Your task to perform on an android device: change the clock display to digital Image 0: 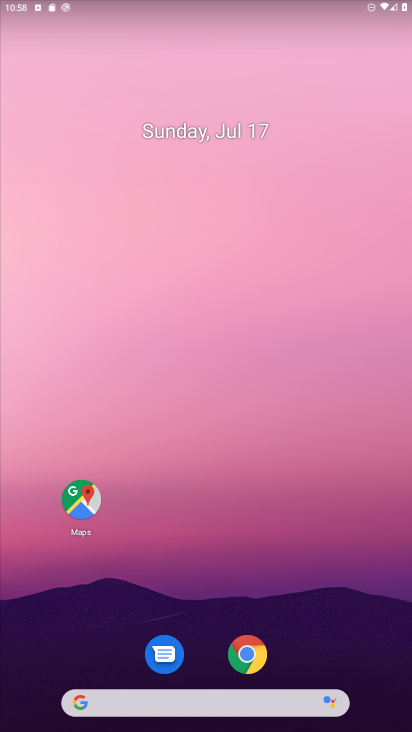
Step 0: drag from (208, 564) to (208, 234)
Your task to perform on an android device: change the clock display to digital Image 1: 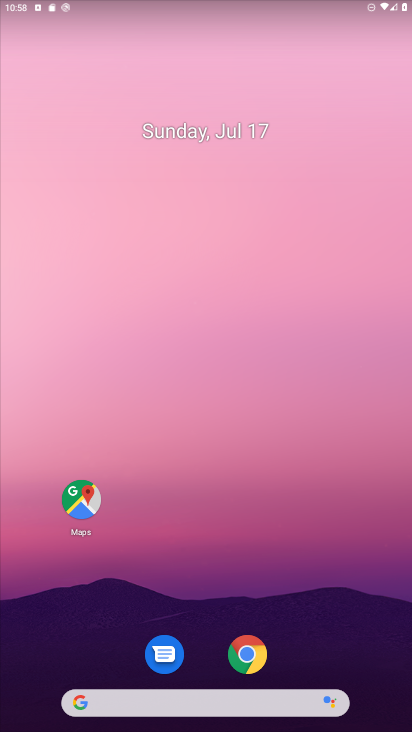
Step 1: drag from (193, 615) to (197, 105)
Your task to perform on an android device: change the clock display to digital Image 2: 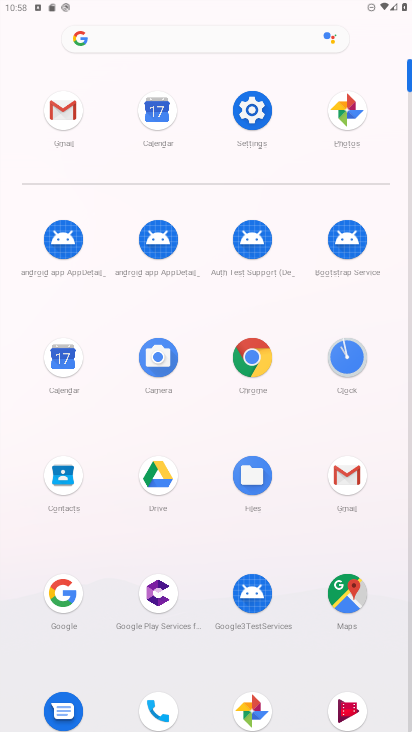
Step 2: click (338, 358)
Your task to perform on an android device: change the clock display to digital Image 3: 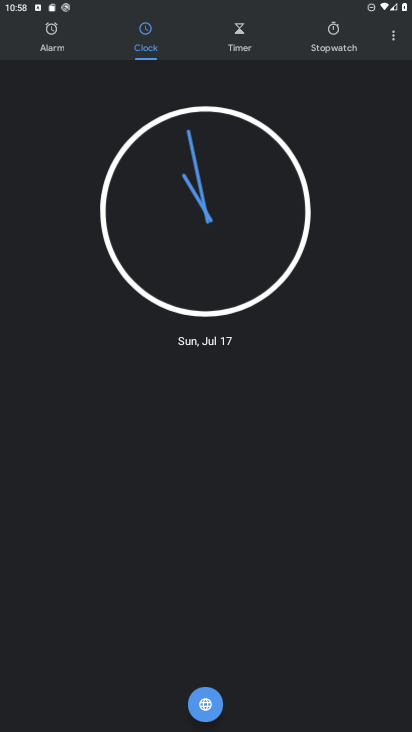
Step 3: click (398, 34)
Your task to perform on an android device: change the clock display to digital Image 4: 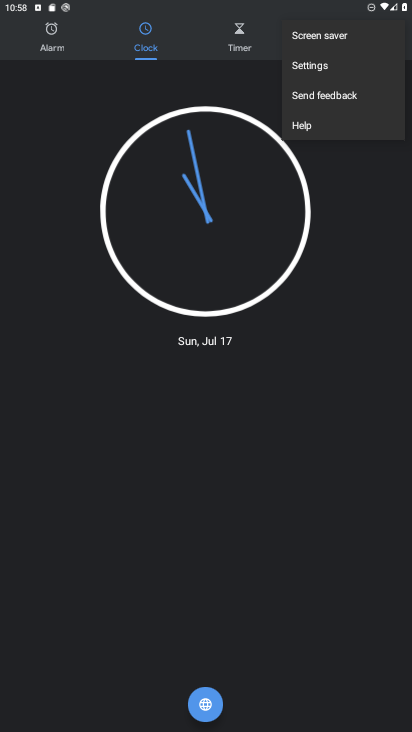
Step 4: click (333, 70)
Your task to perform on an android device: change the clock display to digital Image 5: 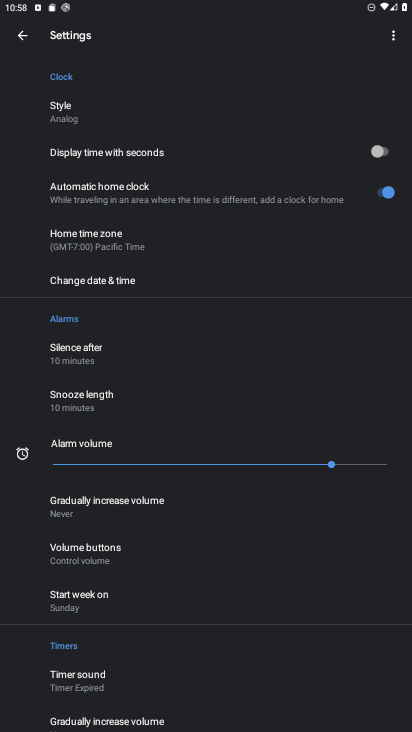
Step 5: click (110, 116)
Your task to perform on an android device: change the clock display to digital Image 6: 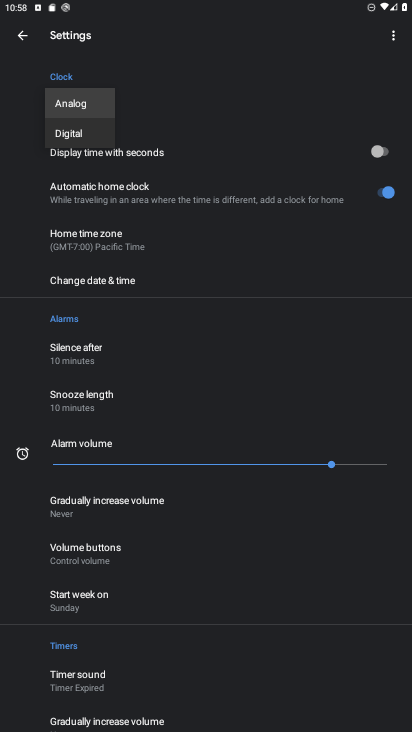
Step 6: click (89, 129)
Your task to perform on an android device: change the clock display to digital Image 7: 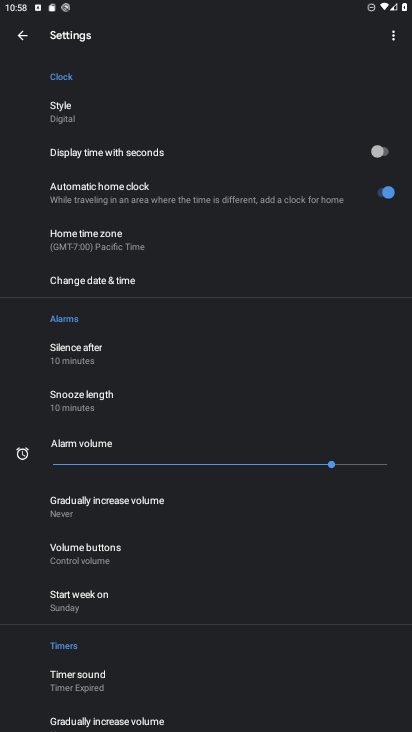
Step 7: task complete